Your task to perform on an android device: change text size in settings app Image 0: 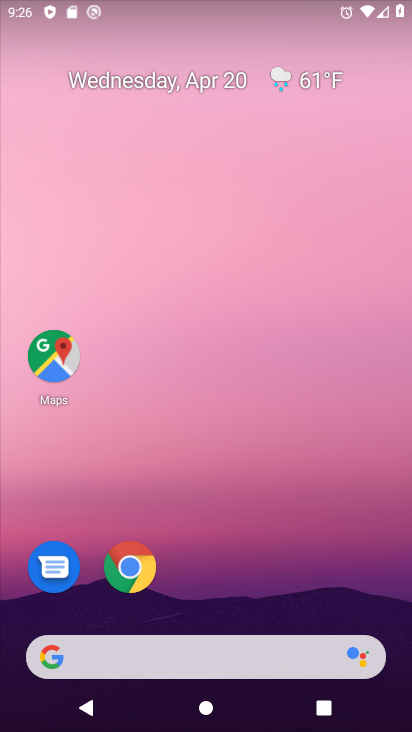
Step 0: drag from (216, 580) to (273, 113)
Your task to perform on an android device: change text size in settings app Image 1: 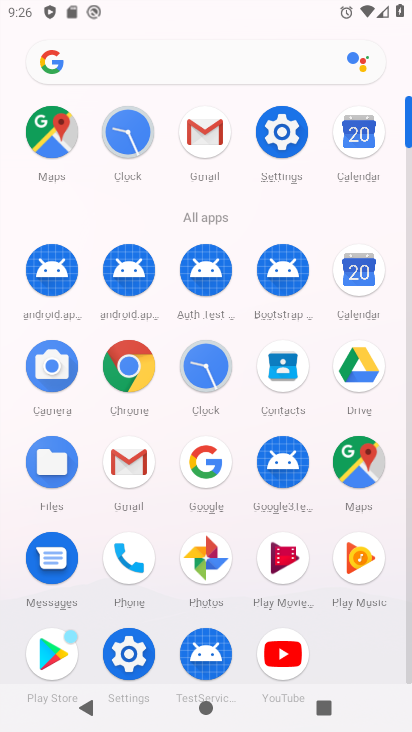
Step 1: click (279, 140)
Your task to perform on an android device: change text size in settings app Image 2: 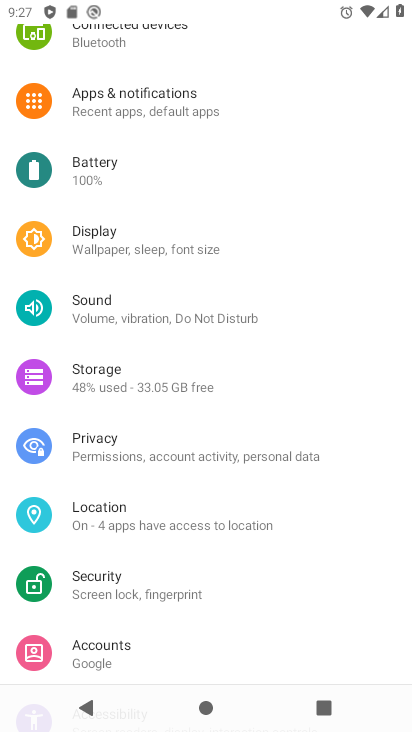
Step 2: click (119, 244)
Your task to perform on an android device: change text size in settings app Image 3: 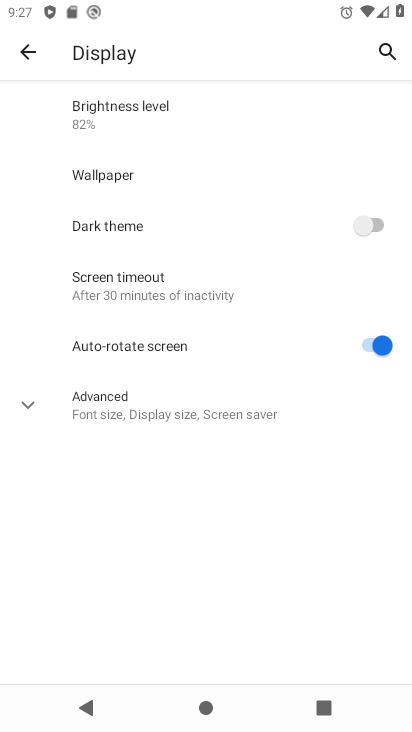
Step 3: click (163, 410)
Your task to perform on an android device: change text size in settings app Image 4: 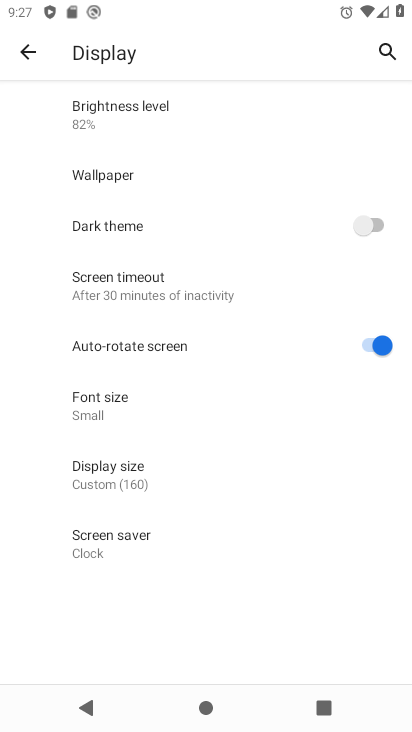
Step 4: click (120, 411)
Your task to perform on an android device: change text size in settings app Image 5: 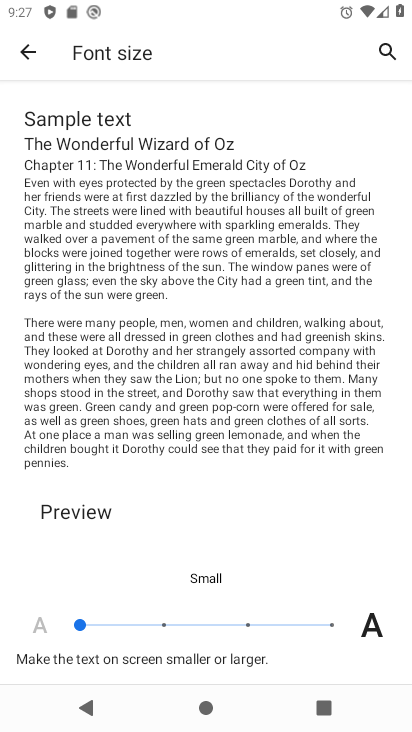
Step 5: click (163, 623)
Your task to perform on an android device: change text size in settings app Image 6: 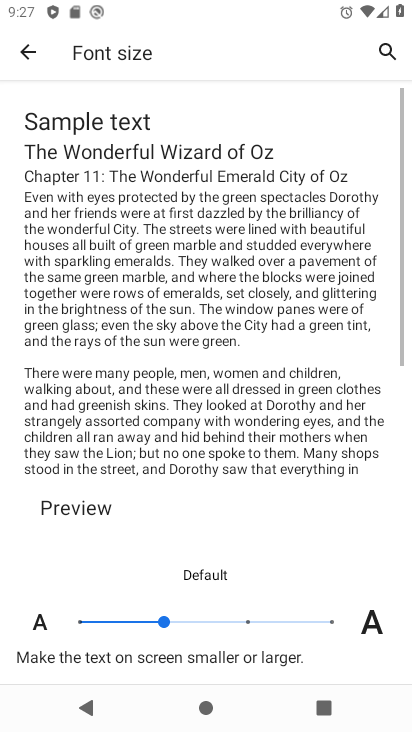
Step 6: task complete